Your task to perform on an android device: Open accessibility settings Image 0: 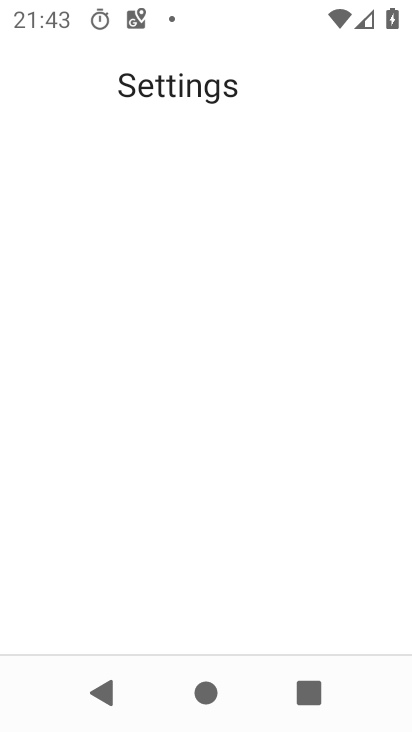
Step 0: drag from (197, 556) to (185, 189)
Your task to perform on an android device: Open accessibility settings Image 1: 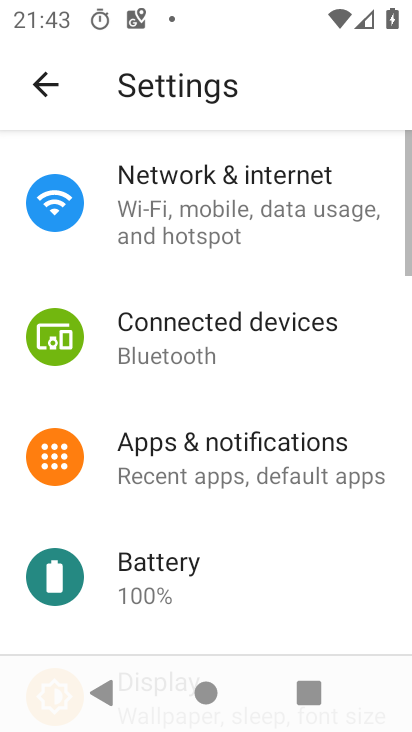
Step 1: press home button
Your task to perform on an android device: Open accessibility settings Image 2: 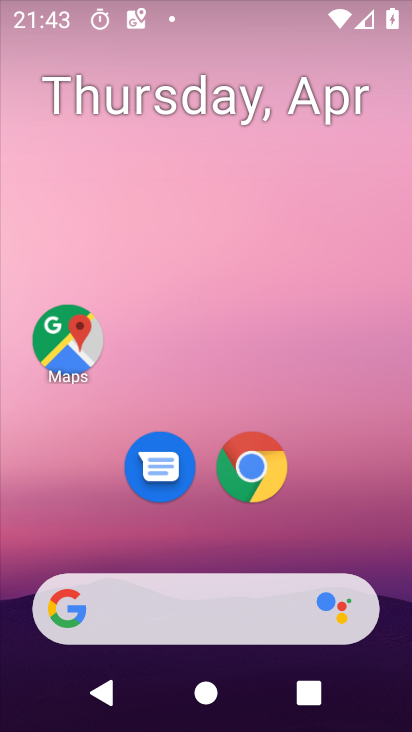
Step 2: drag from (206, 561) to (406, 177)
Your task to perform on an android device: Open accessibility settings Image 3: 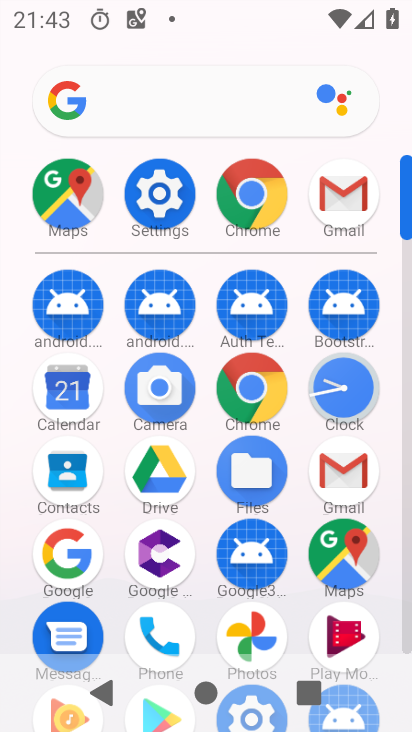
Step 3: click (158, 213)
Your task to perform on an android device: Open accessibility settings Image 4: 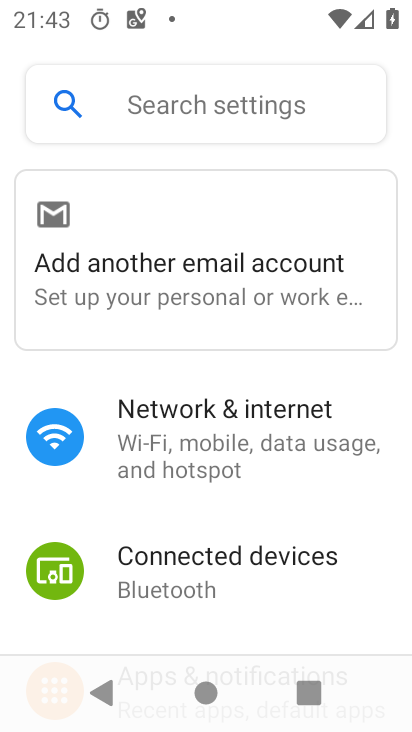
Step 4: drag from (153, 525) to (167, 0)
Your task to perform on an android device: Open accessibility settings Image 5: 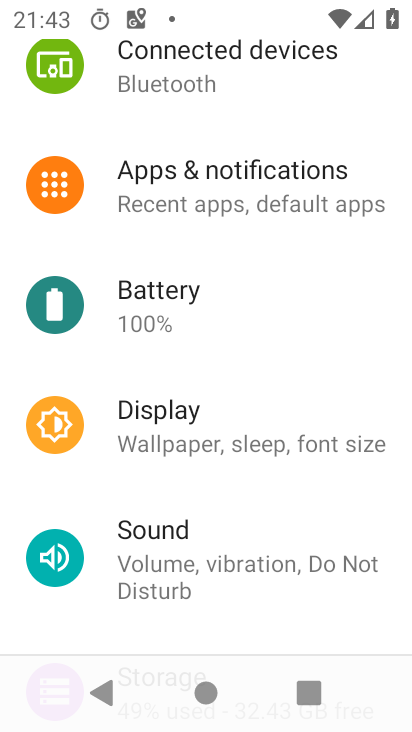
Step 5: drag from (190, 439) to (186, 12)
Your task to perform on an android device: Open accessibility settings Image 6: 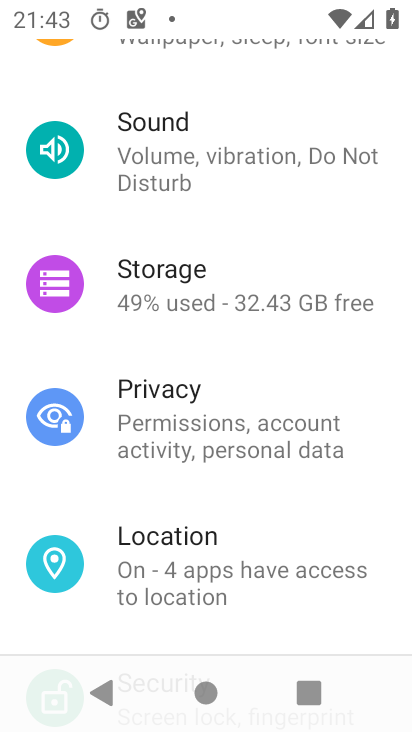
Step 6: drag from (206, 570) to (177, 107)
Your task to perform on an android device: Open accessibility settings Image 7: 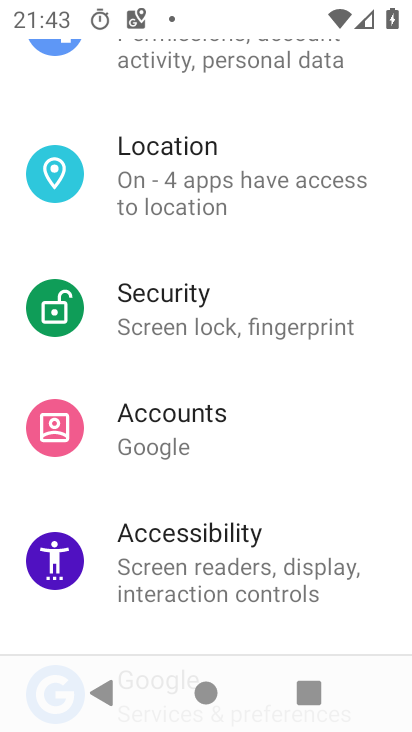
Step 7: click (175, 540)
Your task to perform on an android device: Open accessibility settings Image 8: 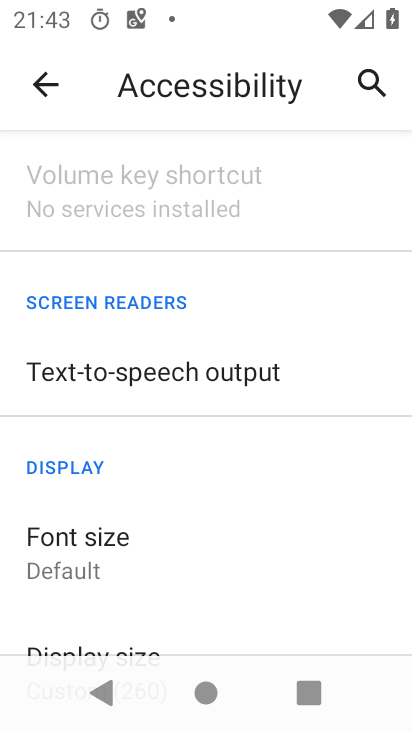
Step 8: task complete